Your task to perform on an android device: Go to calendar. Show me events next week Image 0: 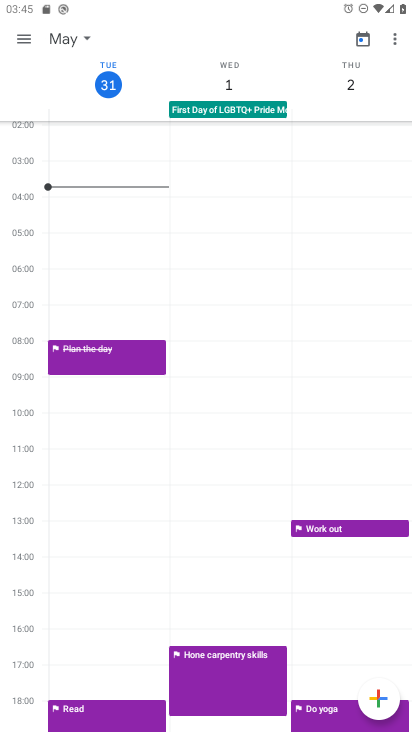
Step 0: press home button
Your task to perform on an android device: Go to calendar. Show me events next week Image 1: 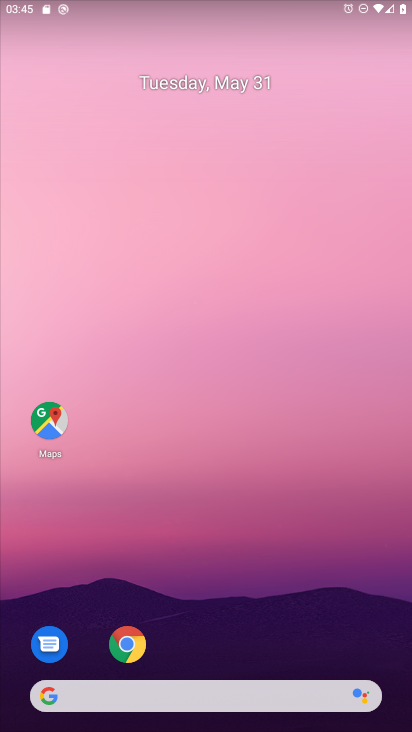
Step 1: drag from (287, 592) to (289, 152)
Your task to perform on an android device: Go to calendar. Show me events next week Image 2: 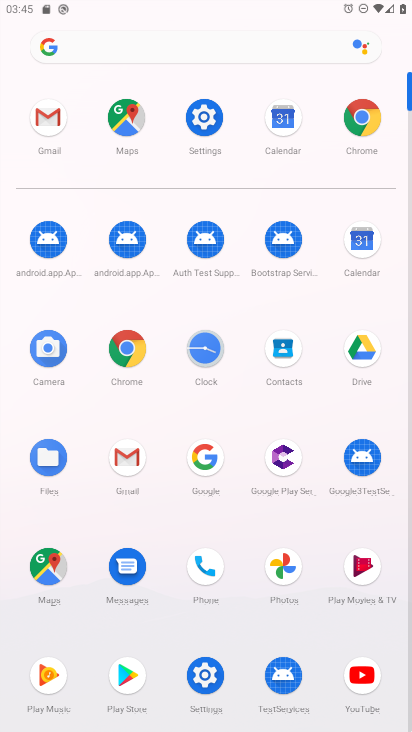
Step 2: click (362, 263)
Your task to perform on an android device: Go to calendar. Show me events next week Image 3: 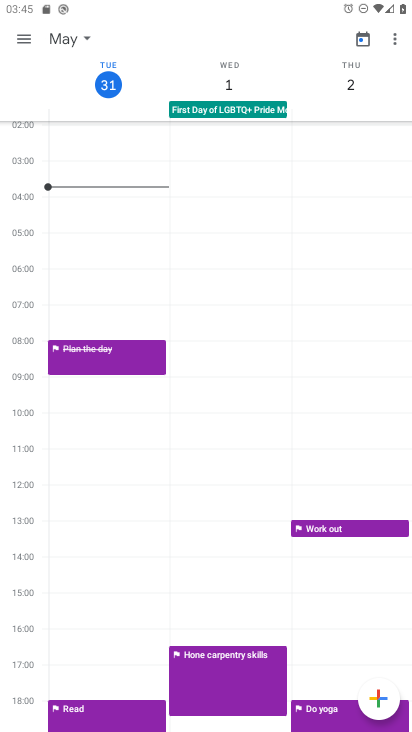
Step 3: click (65, 36)
Your task to perform on an android device: Go to calendar. Show me events next week Image 4: 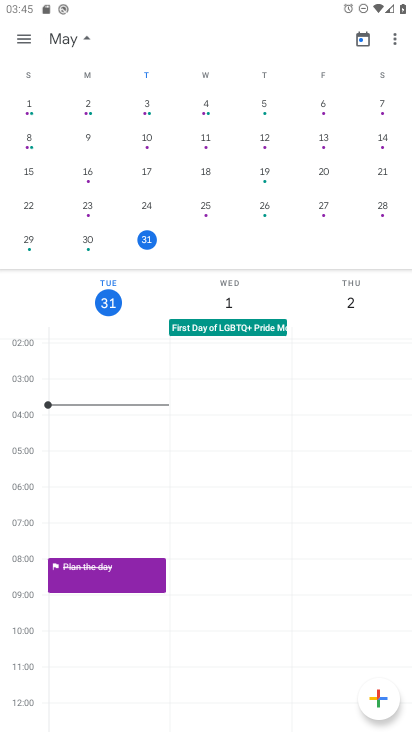
Step 4: drag from (351, 177) to (35, 153)
Your task to perform on an android device: Go to calendar. Show me events next week Image 5: 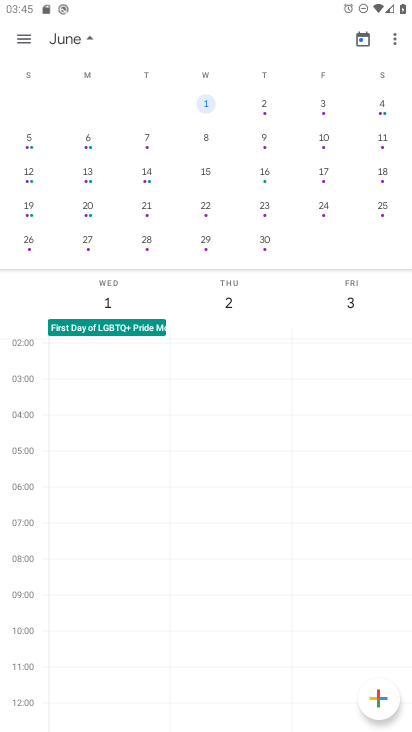
Step 5: click (32, 139)
Your task to perform on an android device: Go to calendar. Show me events next week Image 6: 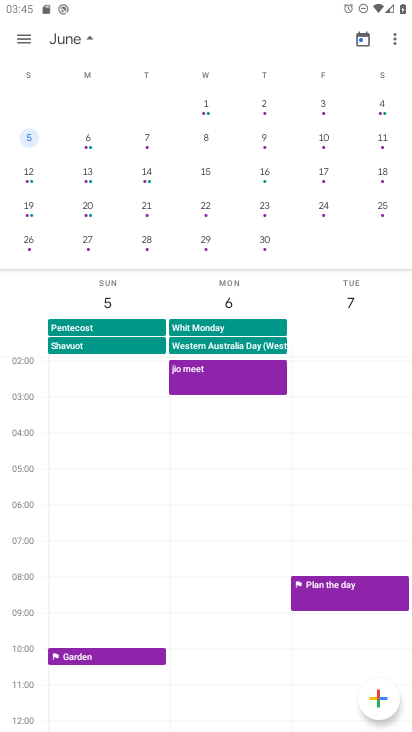
Step 6: click (18, 30)
Your task to perform on an android device: Go to calendar. Show me events next week Image 7: 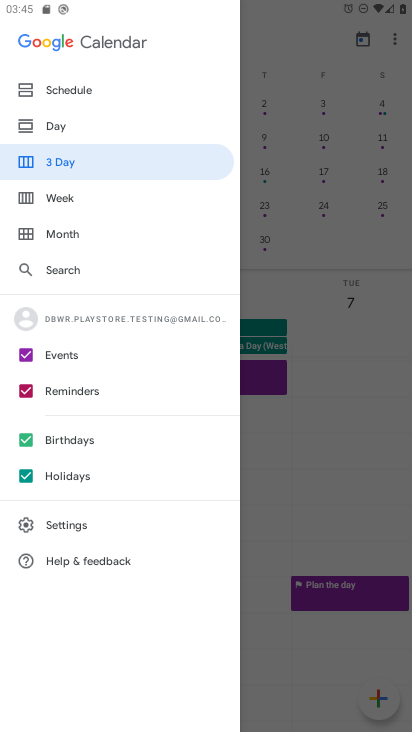
Step 7: click (65, 197)
Your task to perform on an android device: Go to calendar. Show me events next week Image 8: 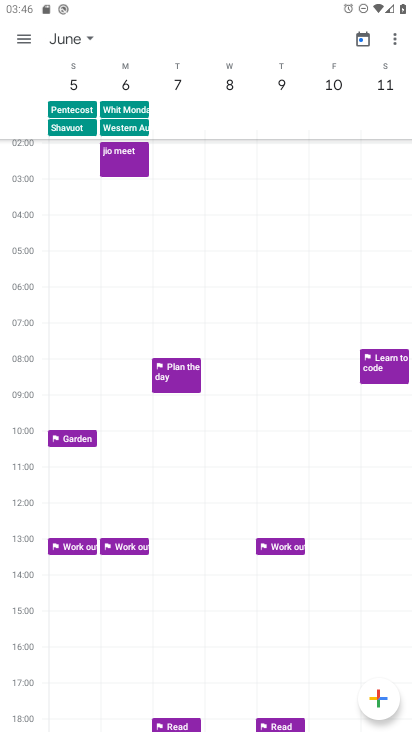
Step 8: task complete